Your task to perform on an android device: turn off picture-in-picture Image 0: 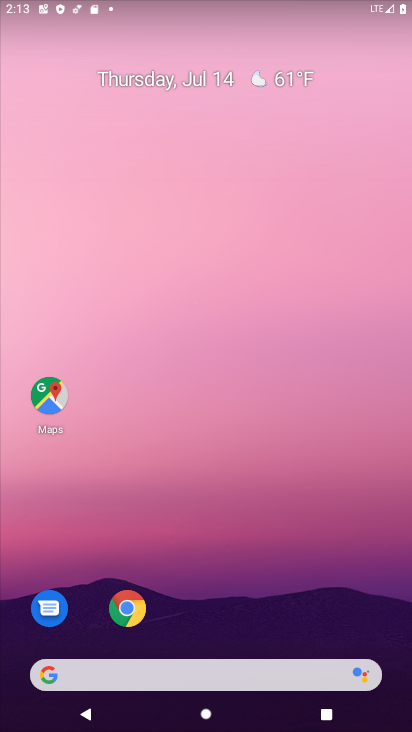
Step 0: click (132, 607)
Your task to perform on an android device: turn off picture-in-picture Image 1: 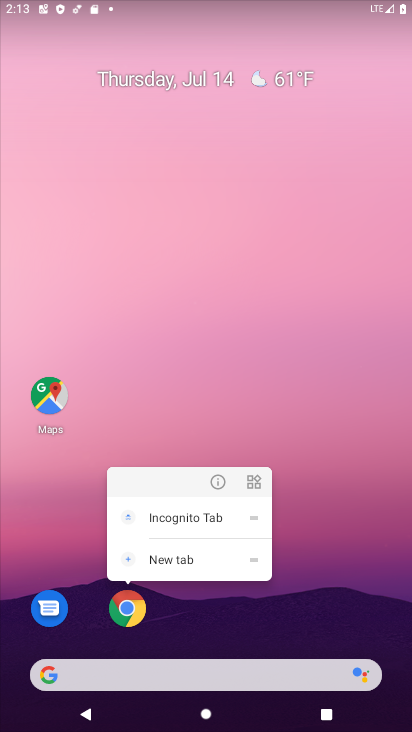
Step 1: click (221, 483)
Your task to perform on an android device: turn off picture-in-picture Image 2: 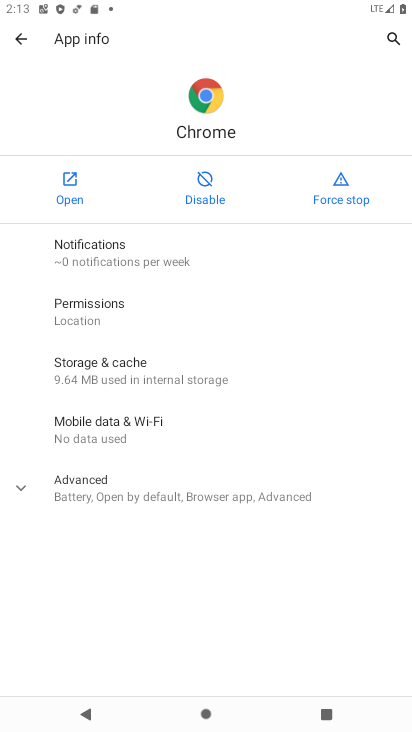
Step 2: click (74, 490)
Your task to perform on an android device: turn off picture-in-picture Image 3: 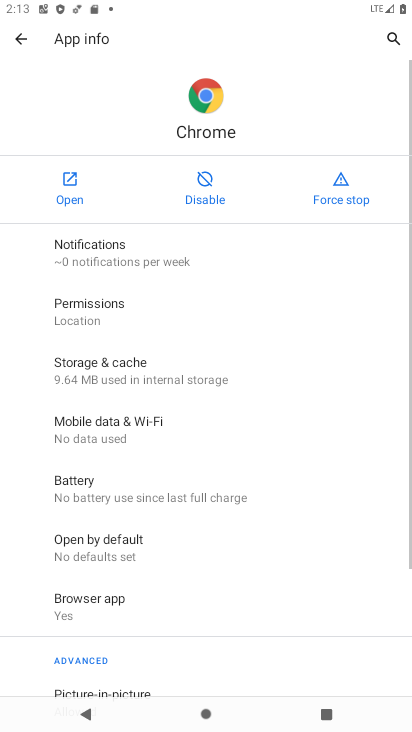
Step 3: drag from (86, 681) to (123, 331)
Your task to perform on an android device: turn off picture-in-picture Image 4: 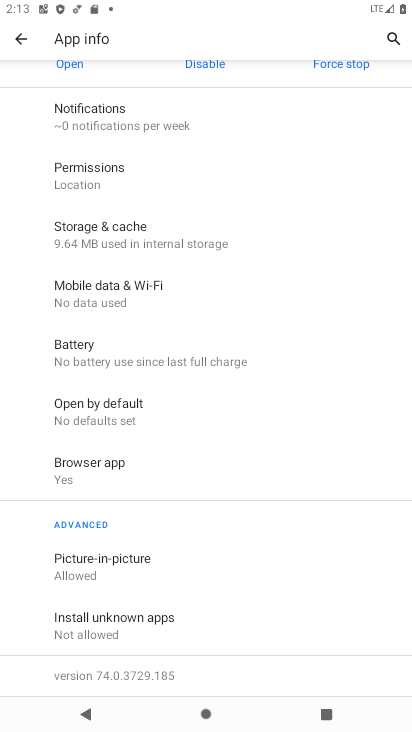
Step 4: click (88, 565)
Your task to perform on an android device: turn off picture-in-picture Image 5: 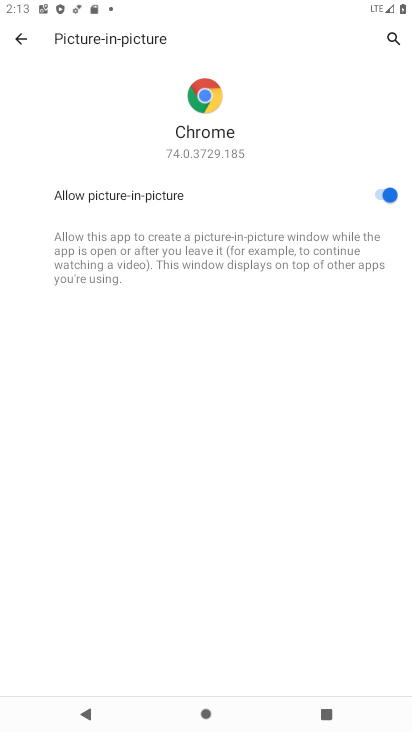
Step 5: click (379, 197)
Your task to perform on an android device: turn off picture-in-picture Image 6: 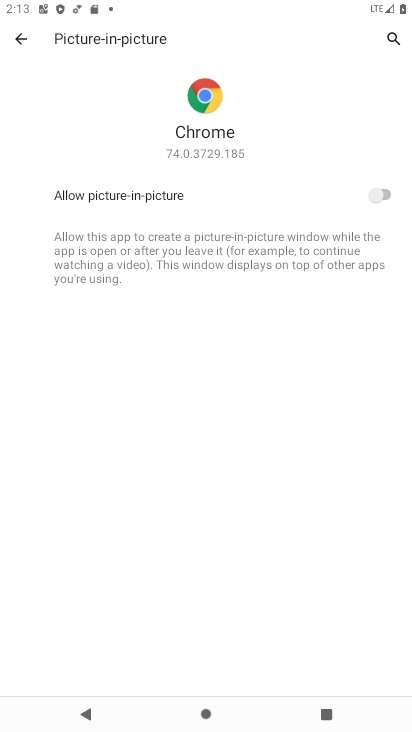
Step 6: task complete